Your task to perform on an android device: Clear the shopping cart on newegg.com. Add "asus zenbook" to the cart on newegg.com Image 0: 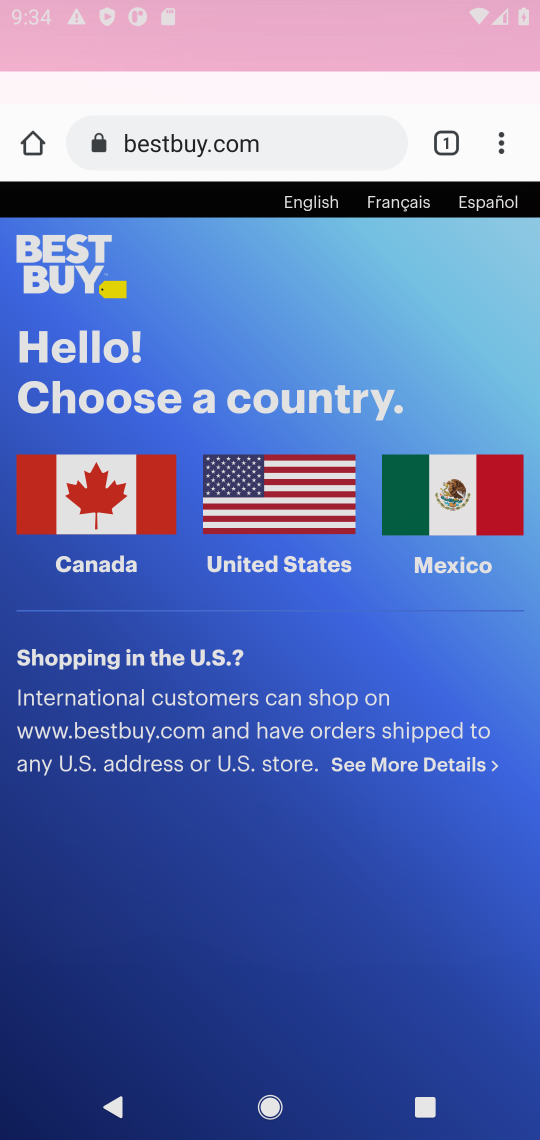
Step 0: click (146, 217)
Your task to perform on an android device: Clear the shopping cart on newegg.com. Add "asus zenbook" to the cart on newegg.com Image 1: 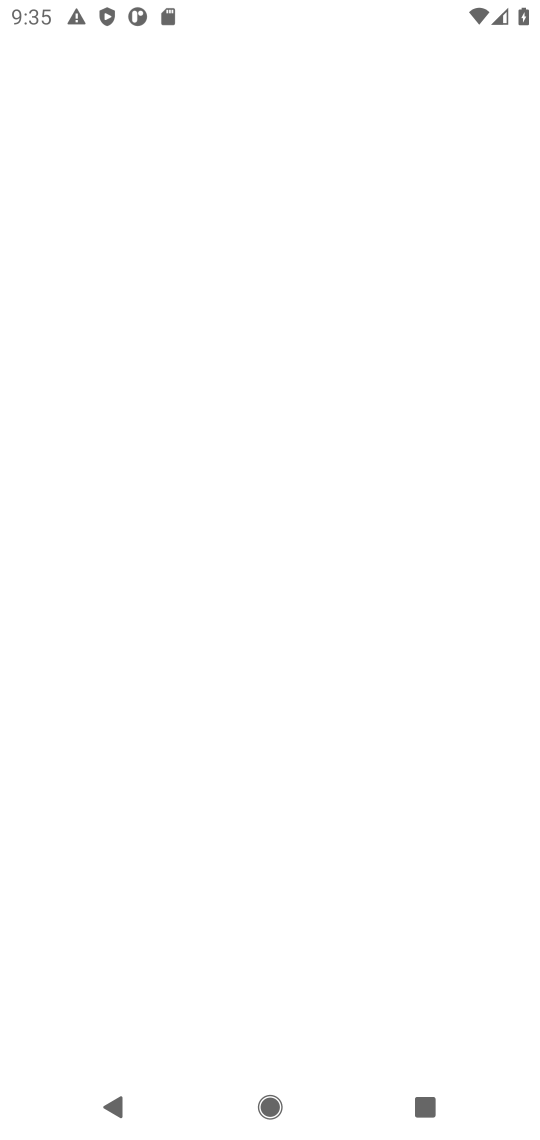
Step 1: press home button
Your task to perform on an android device: Clear the shopping cart on newegg.com. Add "asus zenbook" to the cart on newegg.com Image 2: 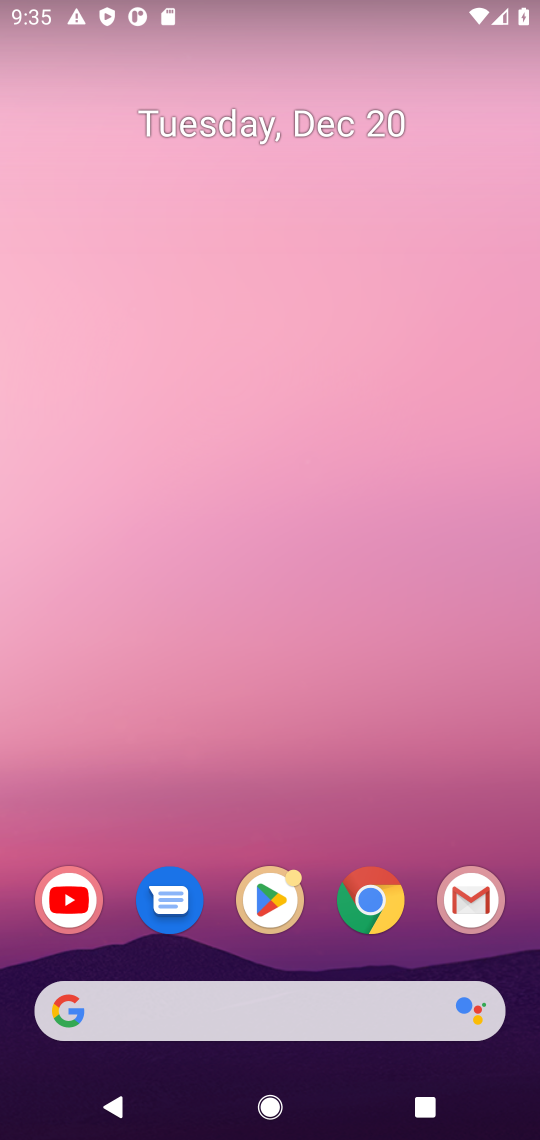
Step 2: click (374, 896)
Your task to perform on an android device: Clear the shopping cart on newegg.com. Add "asus zenbook" to the cart on newegg.com Image 3: 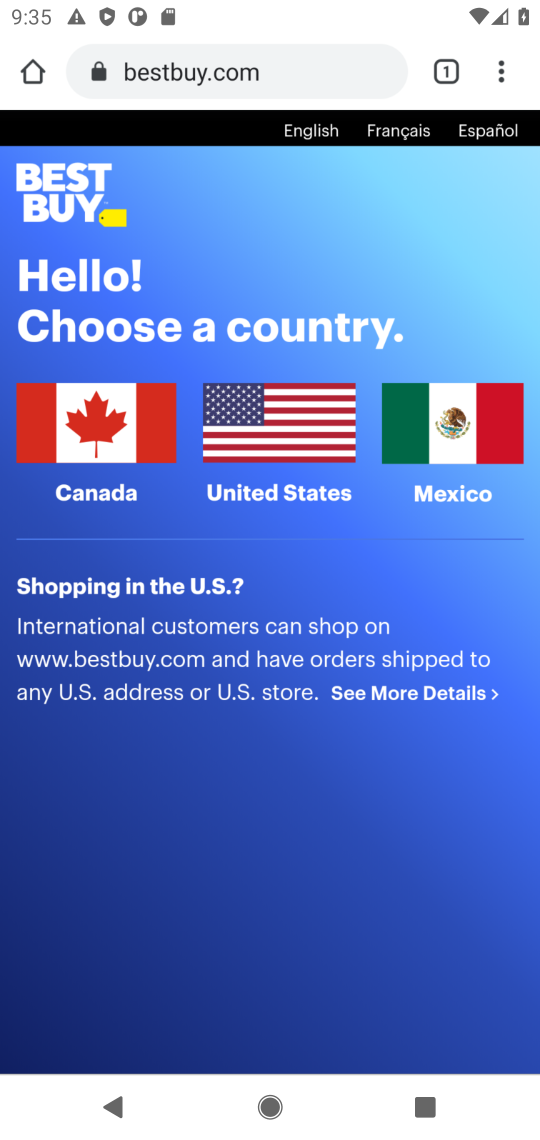
Step 3: click (183, 76)
Your task to perform on an android device: Clear the shopping cart on newegg.com. Add "asus zenbook" to the cart on newegg.com Image 4: 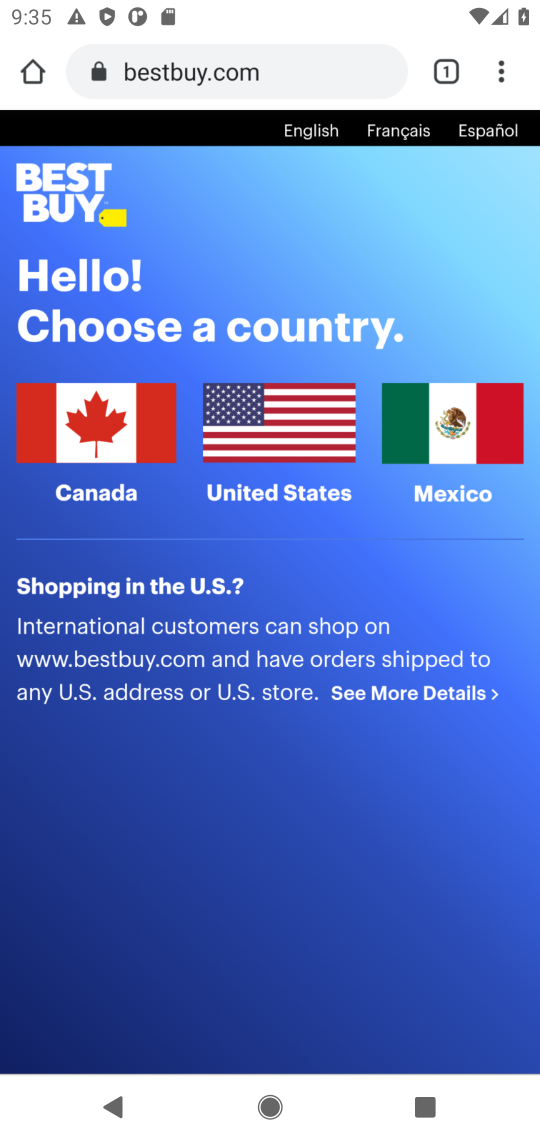
Step 4: click (188, 68)
Your task to perform on an android device: Clear the shopping cart on newegg.com. Add "asus zenbook" to the cart on newegg.com Image 5: 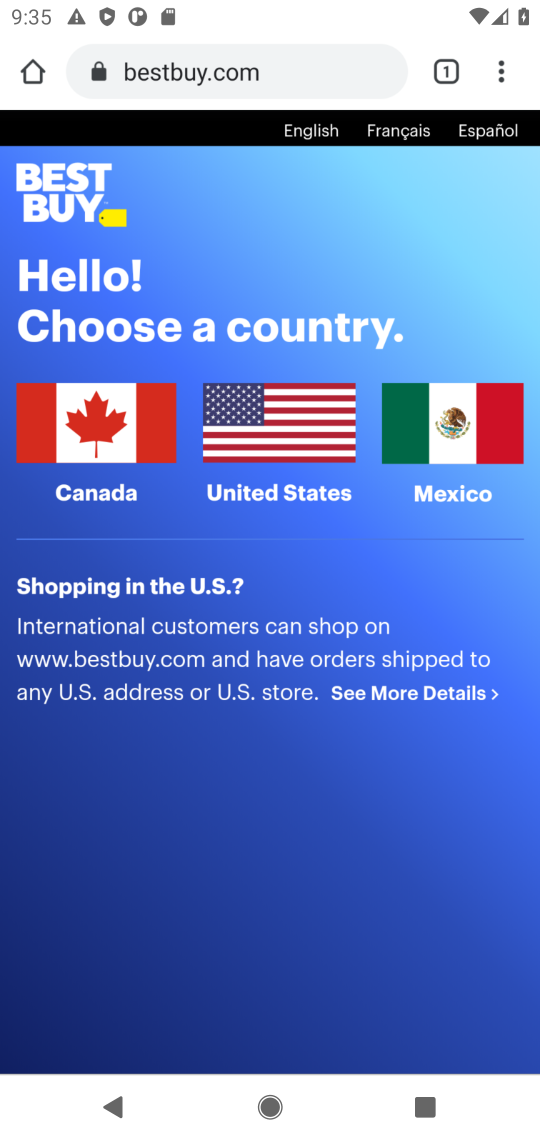
Step 5: click (253, 69)
Your task to perform on an android device: Clear the shopping cart on newegg.com. Add "asus zenbook" to the cart on newegg.com Image 6: 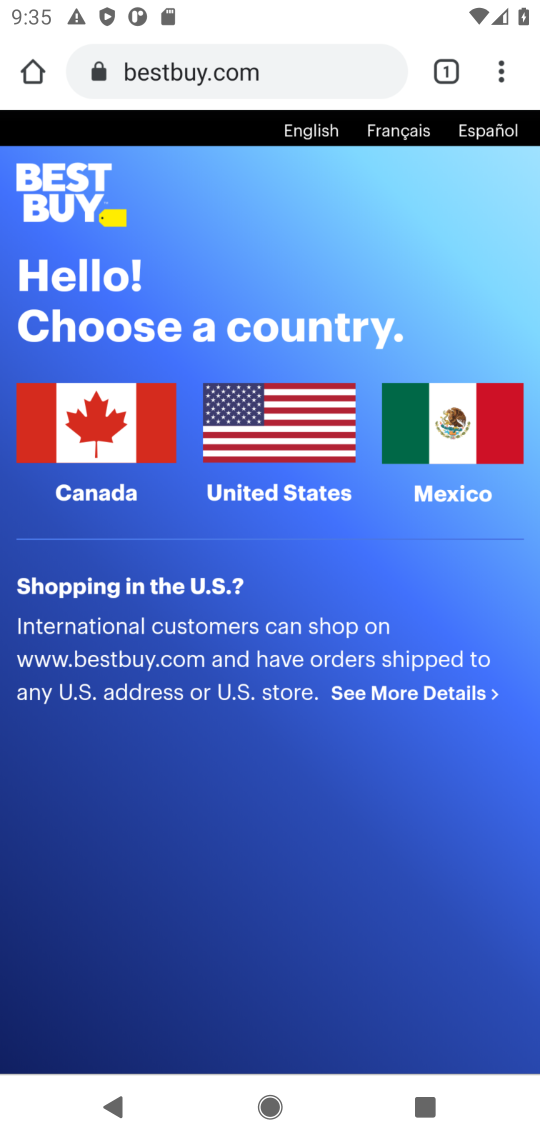
Step 6: click (253, 69)
Your task to perform on an android device: Clear the shopping cart on newegg.com. Add "asus zenbook" to the cart on newegg.com Image 7: 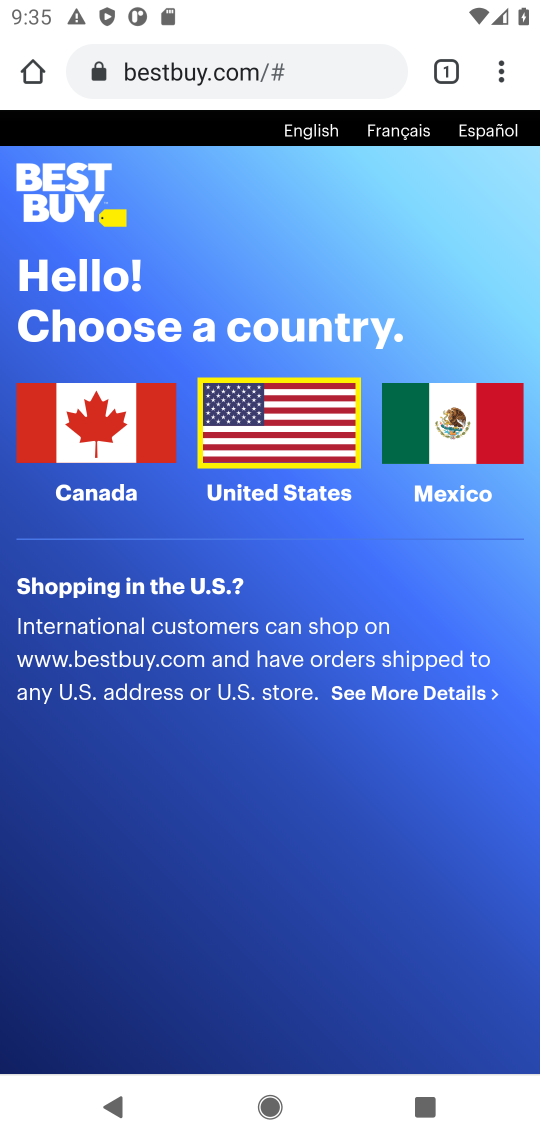
Step 7: click (253, 69)
Your task to perform on an android device: Clear the shopping cart on newegg.com. Add "asus zenbook" to the cart on newegg.com Image 8: 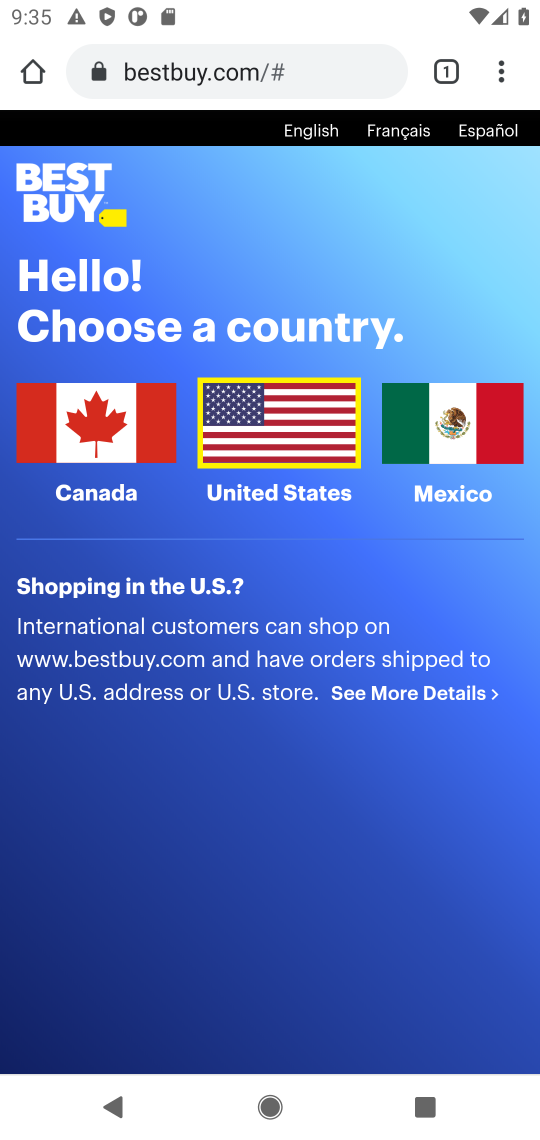
Step 8: click (253, 69)
Your task to perform on an android device: Clear the shopping cart on newegg.com. Add "asus zenbook" to the cart on newegg.com Image 9: 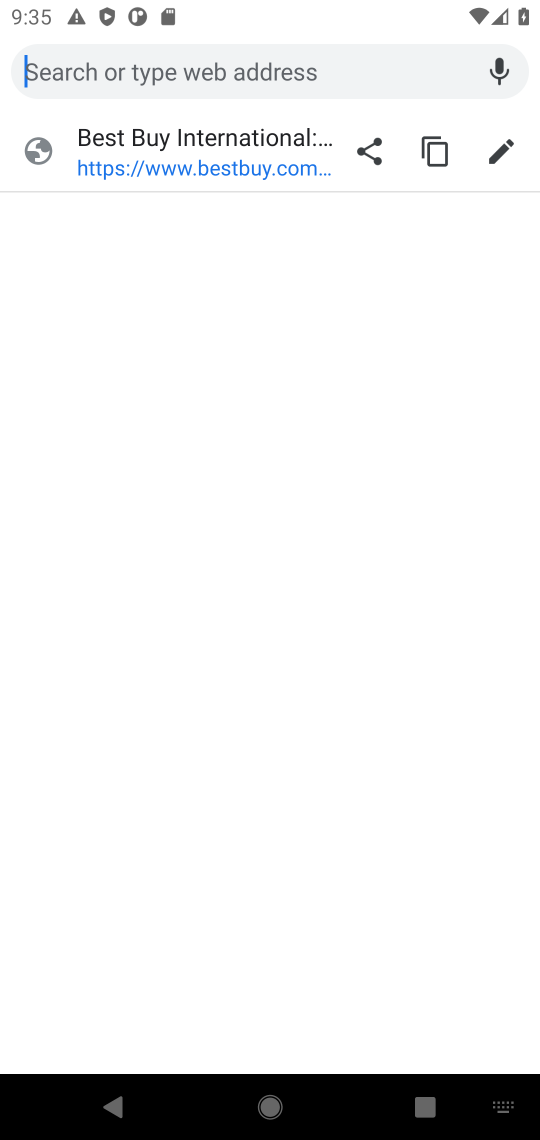
Step 9: click (253, 69)
Your task to perform on an android device: Clear the shopping cart on newegg.com. Add "asus zenbook" to the cart on newegg.com Image 10: 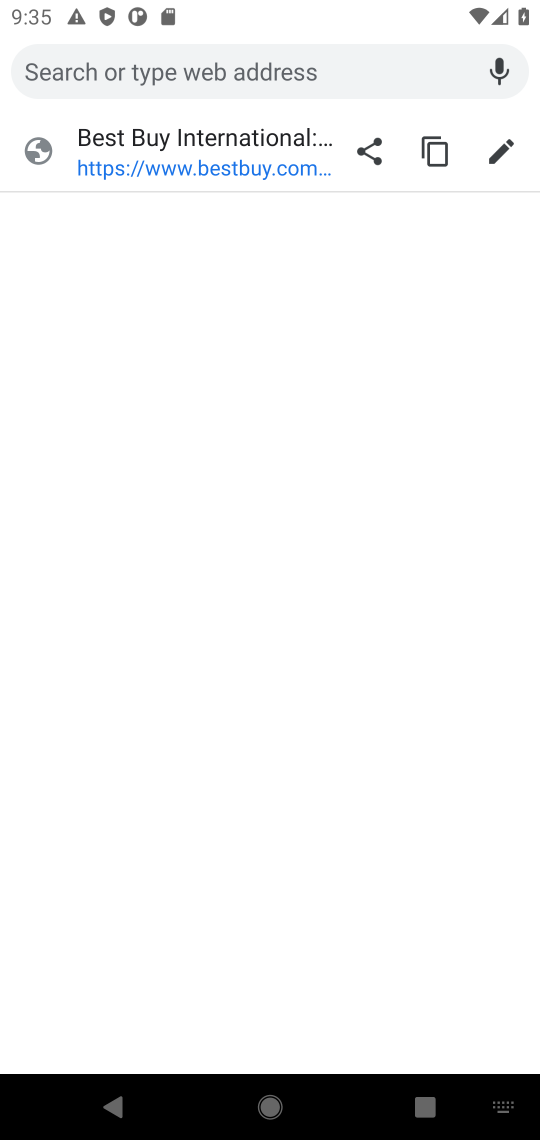
Step 10: type "newegg.com"
Your task to perform on an android device: Clear the shopping cart on newegg.com. Add "asus zenbook" to the cart on newegg.com Image 11: 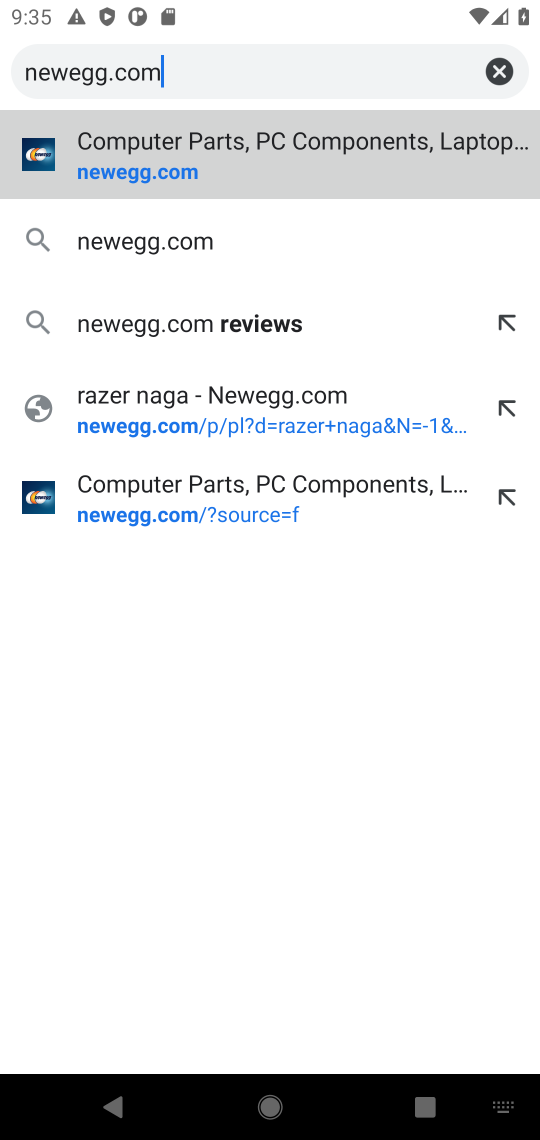
Step 11: click (130, 178)
Your task to perform on an android device: Clear the shopping cart on newegg.com. Add "asus zenbook" to the cart on newegg.com Image 12: 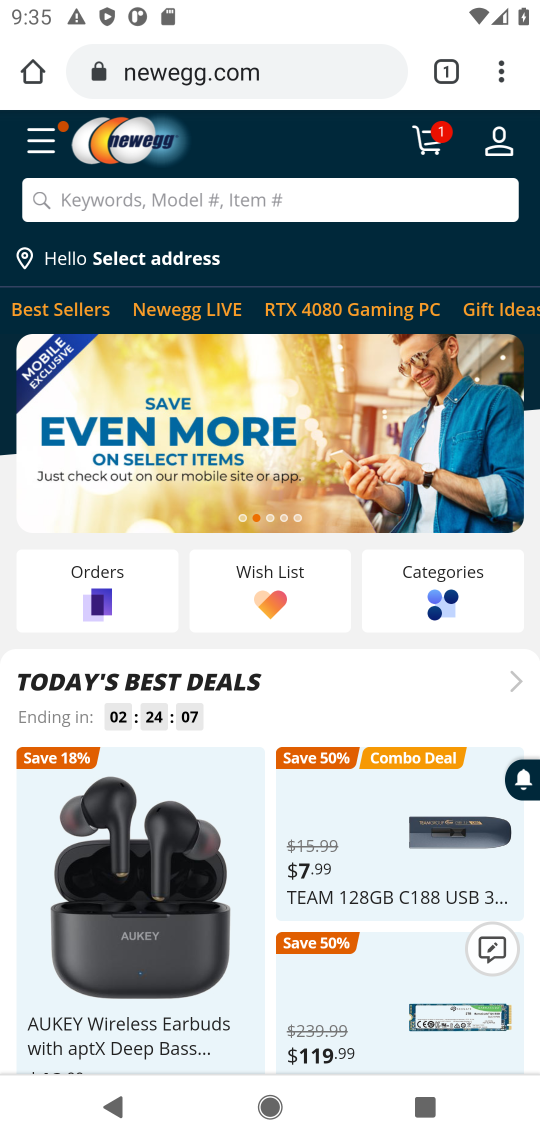
Step 12: click (429, 151)
Your task to perform on an android device: Clear the shopping cart on newegg.com. Add "asus zenbook" to the cart on newegg.com Image 13: 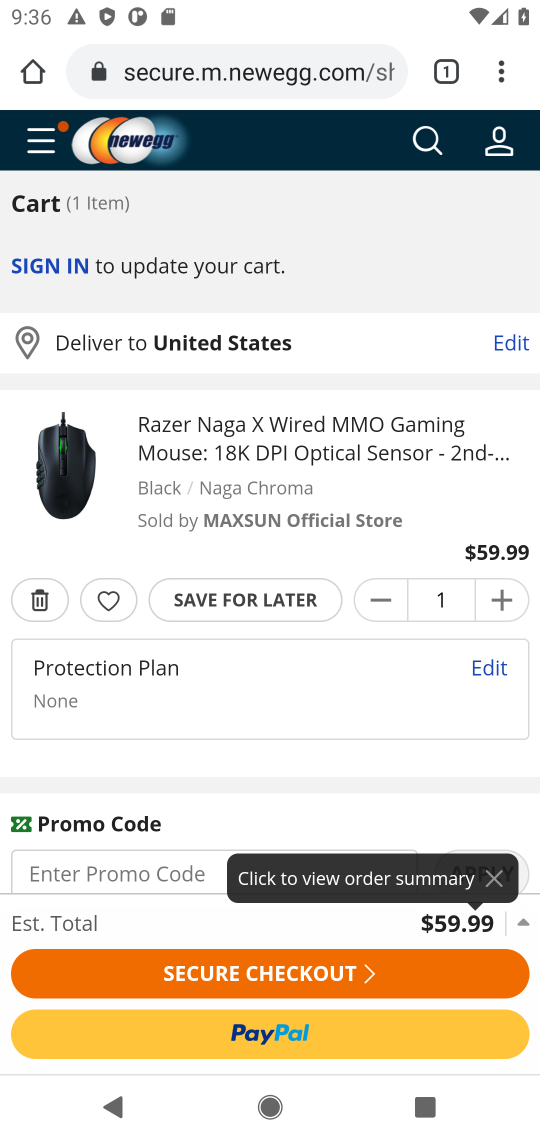
Step 13: click (46, 609)
Your task to perform on an android device: Clear the shopping cart on newegg.com. Add "asus zenbook" to the cart on newegg.com Image 14: 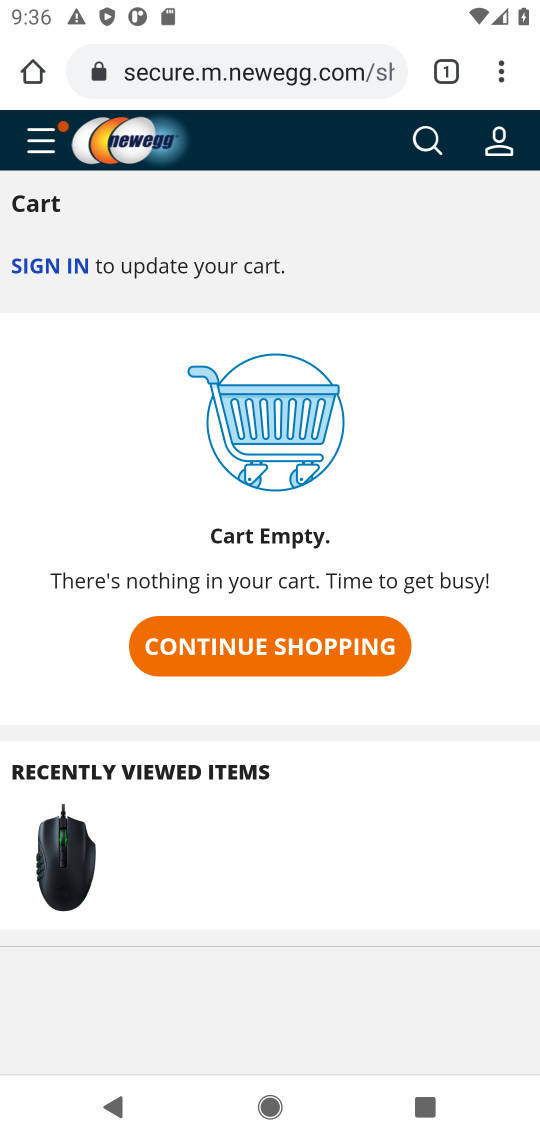
Step 14: click (431, 132)
Your task to perform on an android device: Clear the shopping cart on newegg.com. Add "asus zenbook" to the cart on newegg.com Image 15: 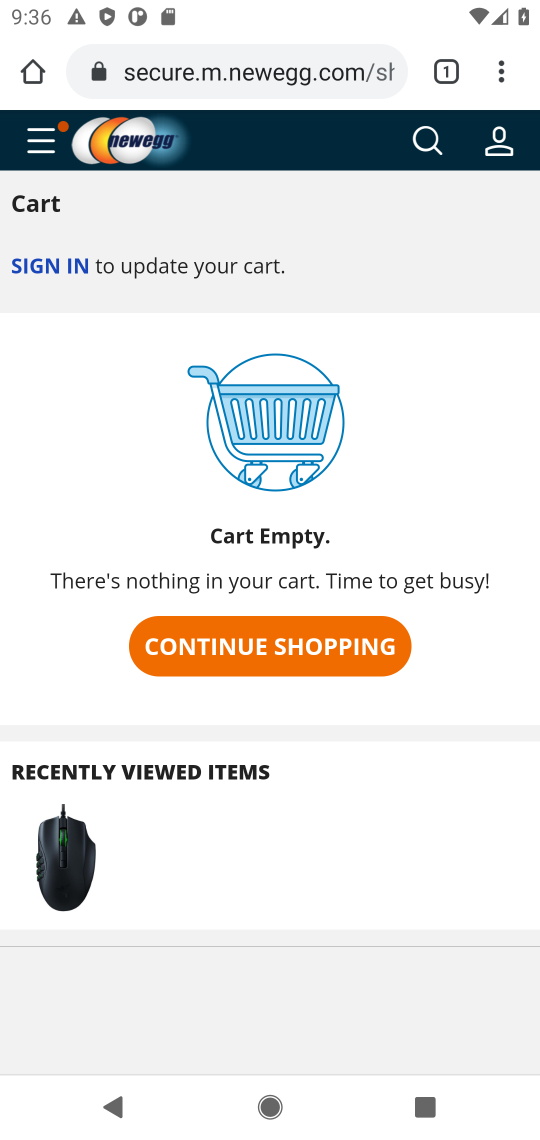
Step 15: click (431, 132)
Your task to perform on an android device: Clear the shopping cart on newegg.com. Add "asus zenbook" to the cart on newegg.com Image 16: 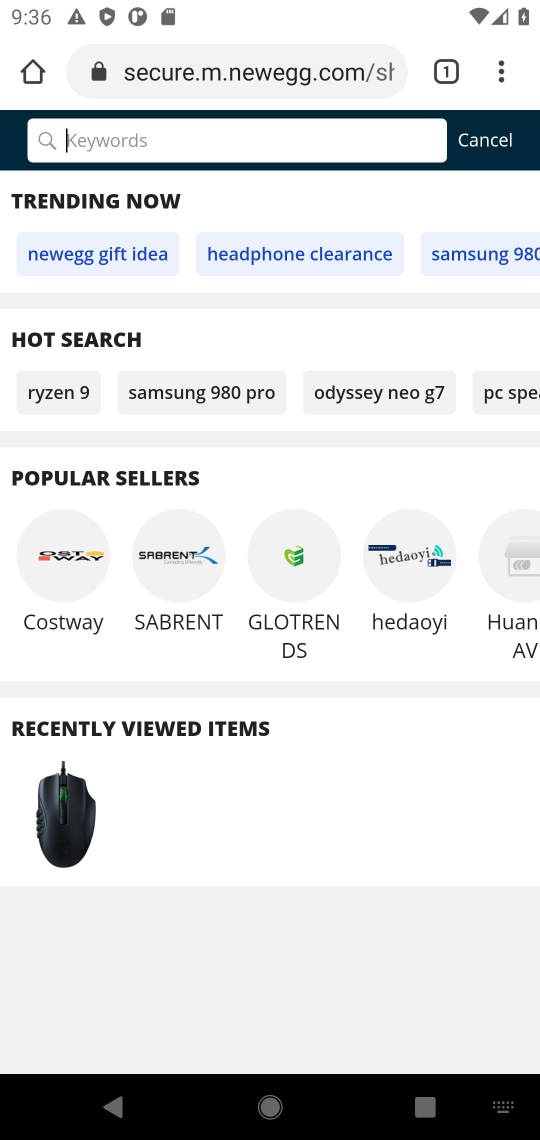
Step 16: type "asus zenbook"
Your task to perform on an android device: Clear the shopping cart on newegg.com. Add "asus zenbook" to the cart on newegg.com Image 17: 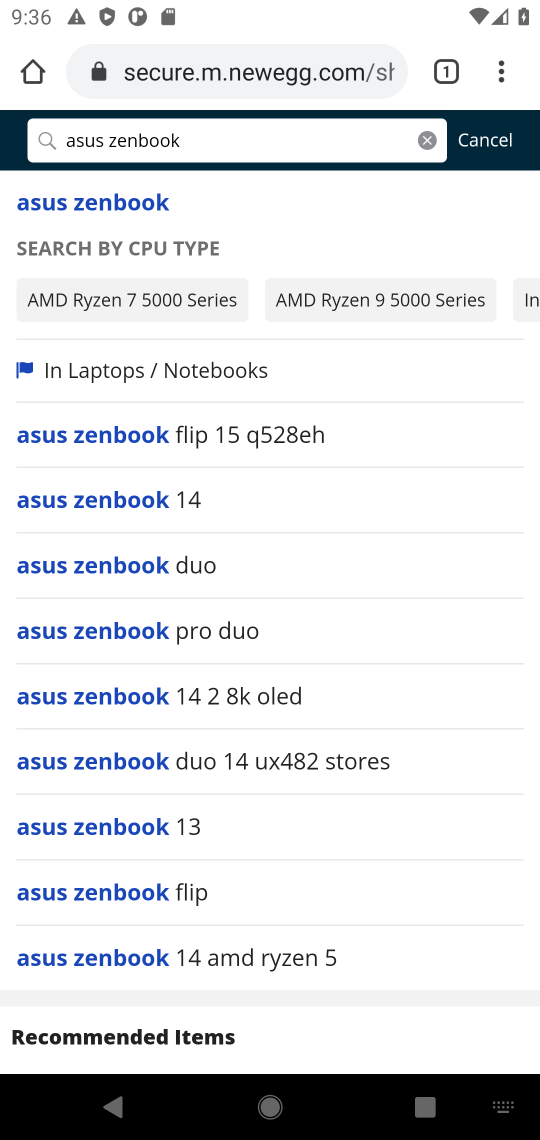
Step 17: click (76, 205)
Your task to perform on an android device: Clear the shopping cart on newegg.com. Add "asus zenbook" to the cart on newegg.com Image 18: 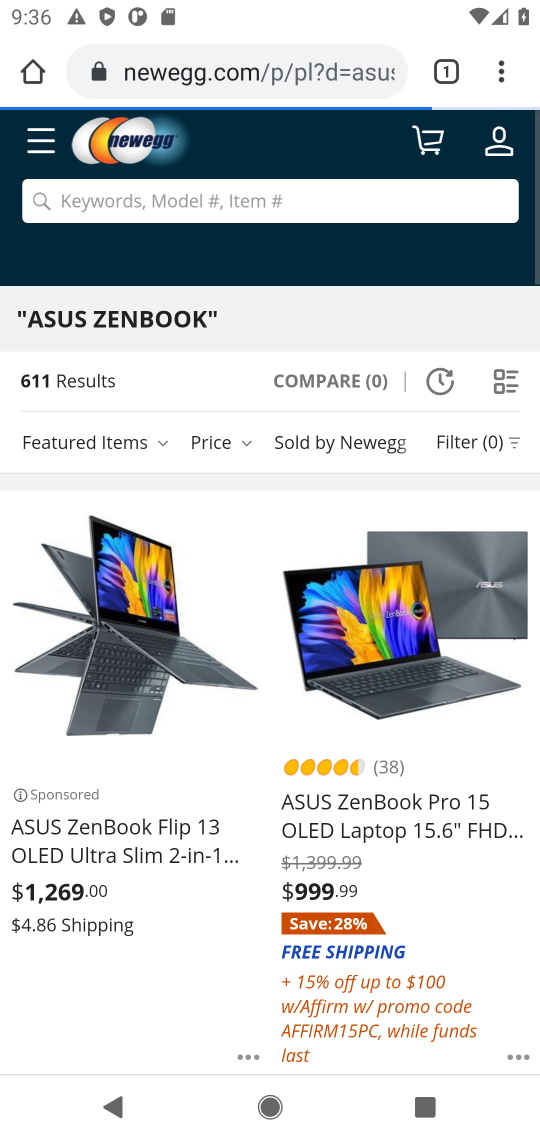
Step 18: click (76, 205)
Your task to perform on an android device: Clear the shopping cart on newegg.com. Add "asus zenbook" to the cart on newegg.com Image 19: 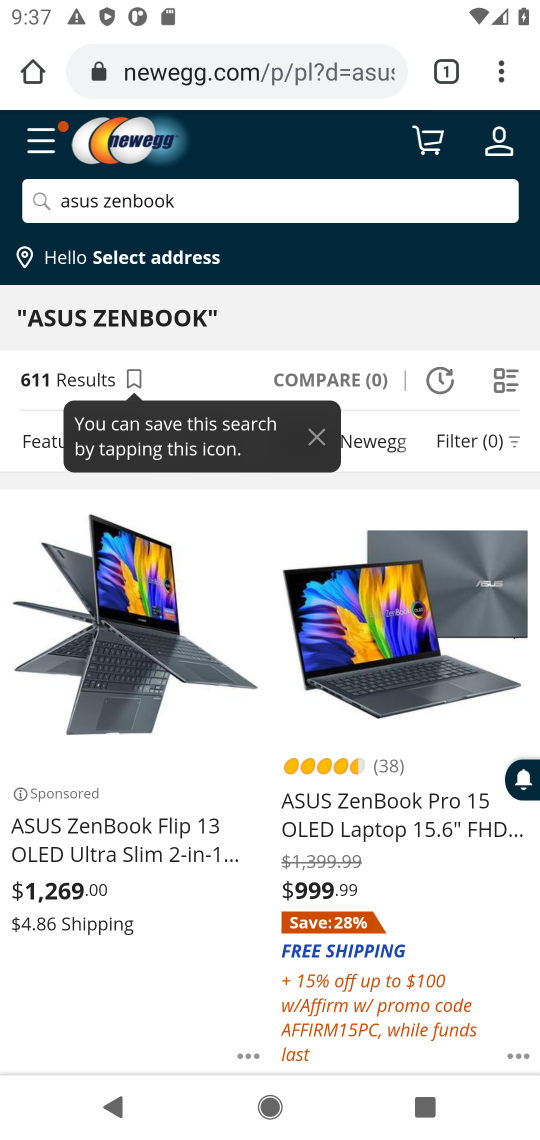
Step 19: click (66, 839)
Your task to perform on an android device: Clear the shopping cart on newegg.com. Add "asus zenbook" to the cart on newegg.com Image 20: 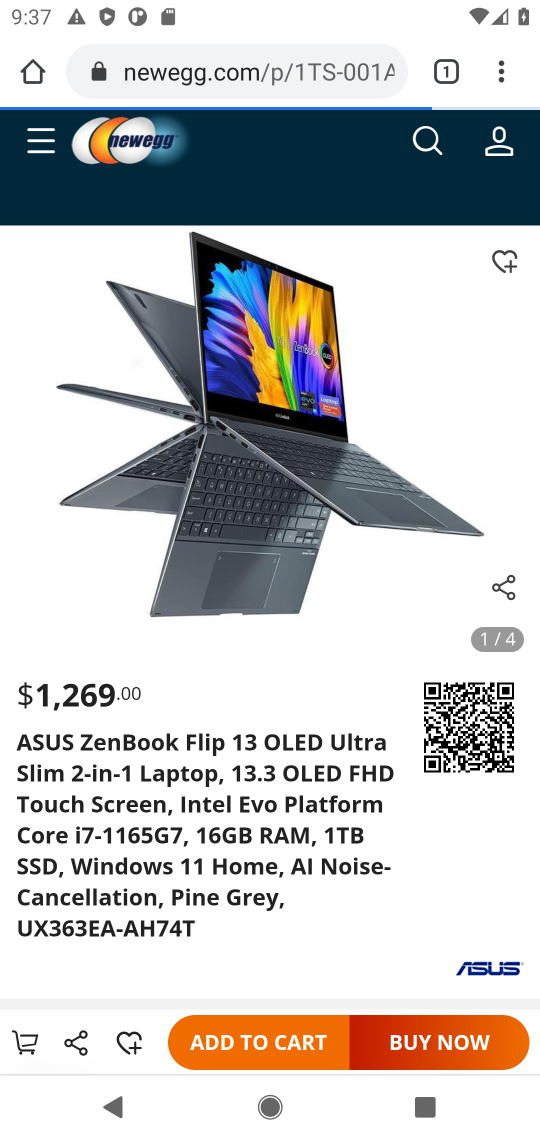
Step 20: click (257, 1047)
Your task to perform on an android device: Clear the shopping cart on newegg.com. Add "asus zenbook" to the cart on newegg.com Image 21: 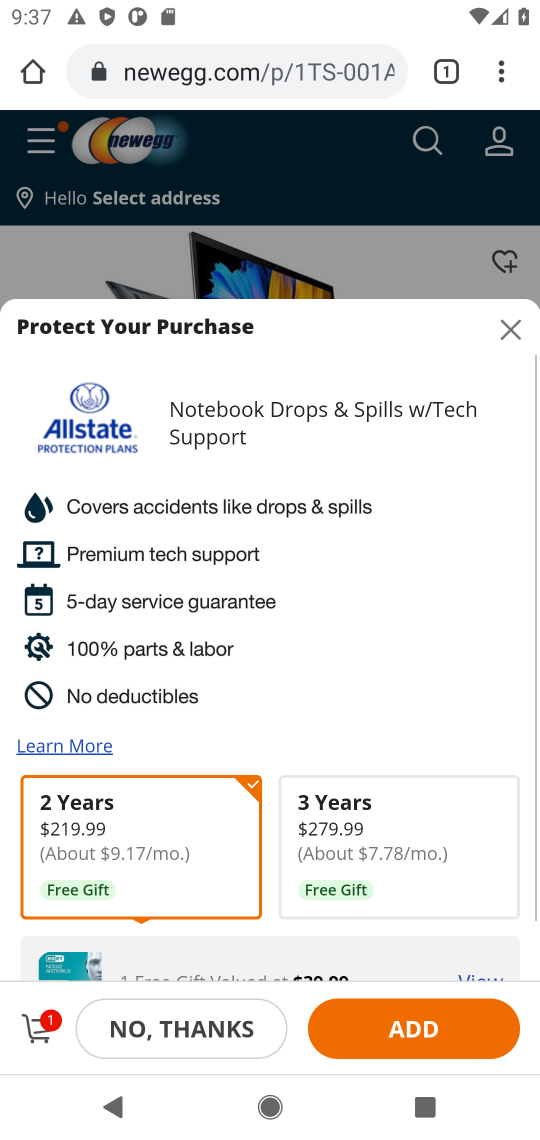
Step 21: task complete